Your task to perform on an android device: Open the map Image 0: 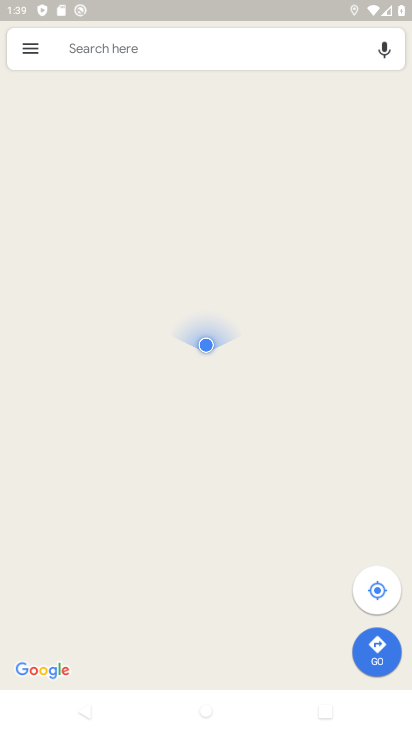
Step 0: task complete